Your task to perform on an android device: Go to sound settings Image 0: 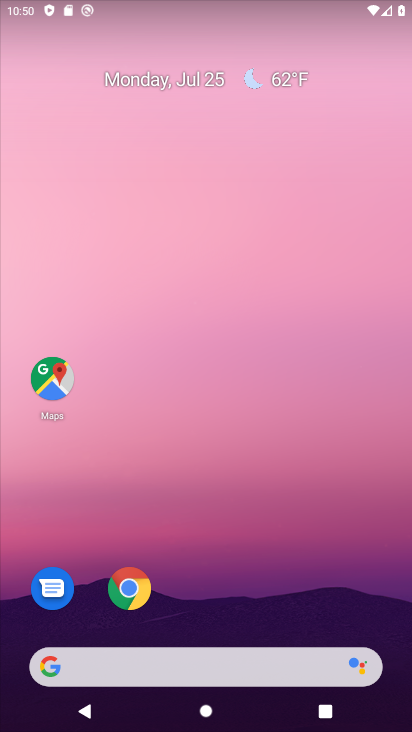
Step 0: drag from (4, 695) to (254, 106)
Your task to perform on an android device: Go to sound settings Image 1: 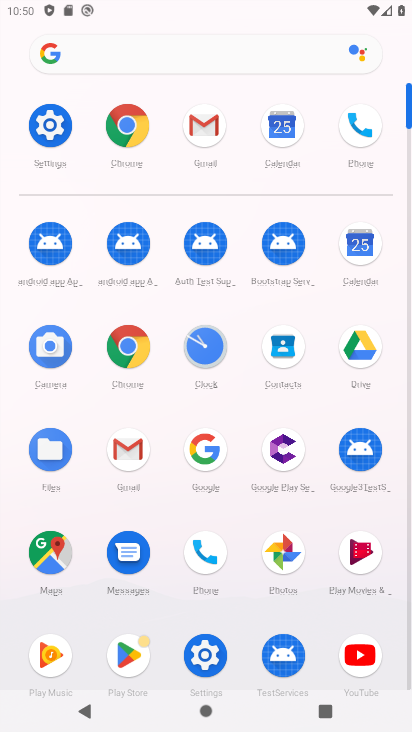
Step 1: click (56, 126)
Your task to perform on an android device: Go to sound settings Image 2: 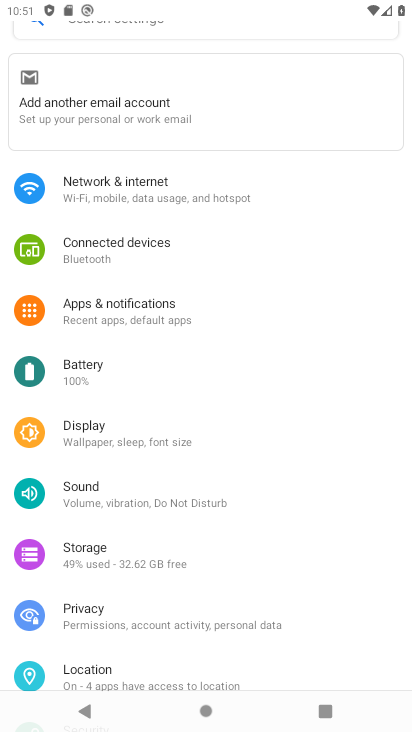
Step 2: click (78, 494)
Your task to perform on an android device: Go to sound settings Image 3: 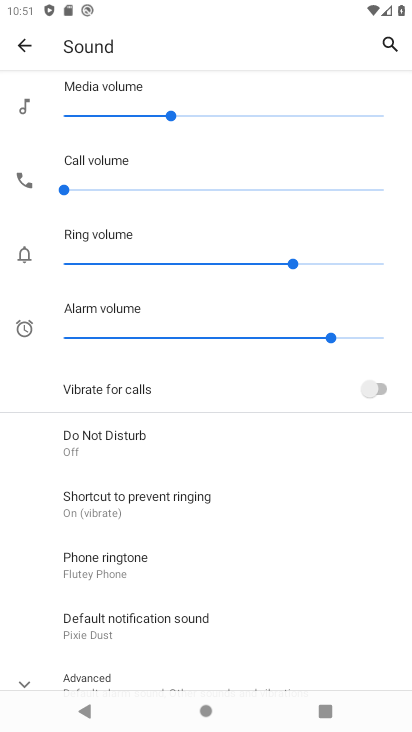
Step 3: task complete